Your task to perform on an android device: turn off translation in the chrome app Image 0: 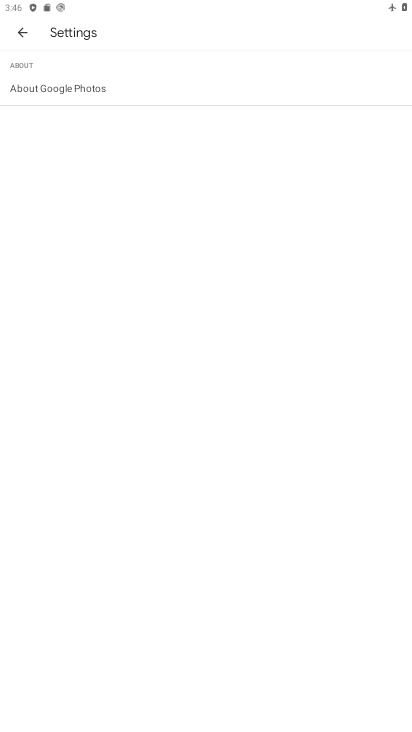
Step 0: press home button
Your task to perform on an android device: turn off translation in the chrome app Image 1: 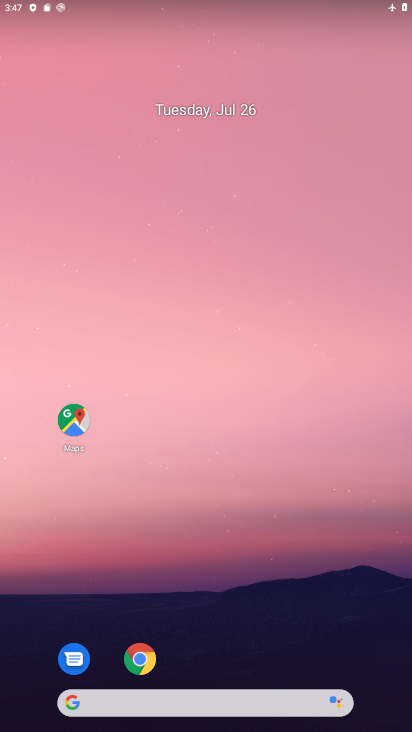
Step 1: drag from (272, 609) to (204, 0)
Your task to perform on an android device: turn off translation in the chrome app Image 2: 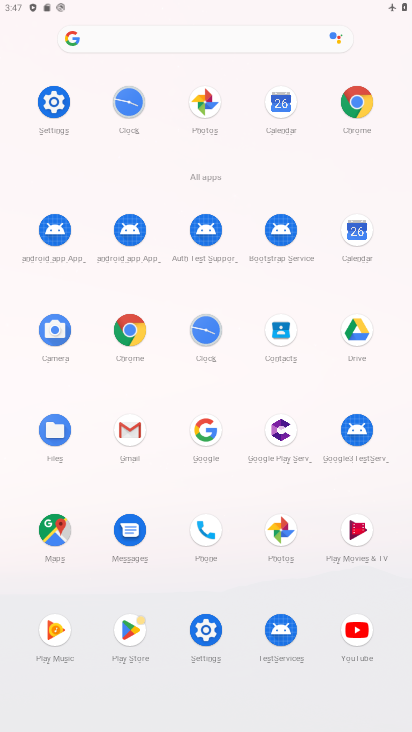
Step 2: click (358, 108)
Your task to perform on an android device: turn off translation in the chrome app Image 3: 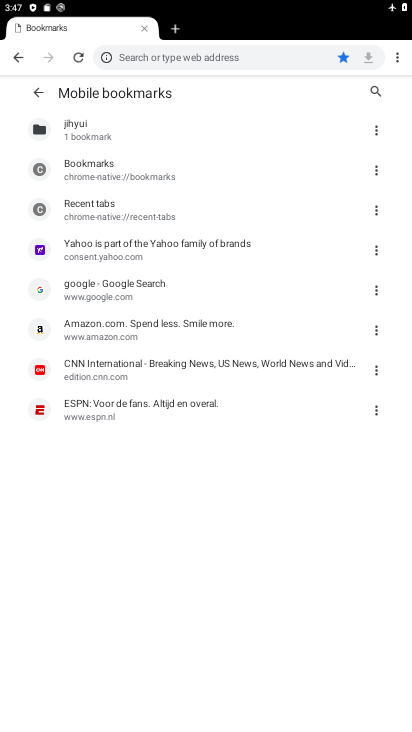
Step 3: drag from (394, 65) to (281, 264)
Your task to perform on an android device: turn off translation in the chrome app Image 4: 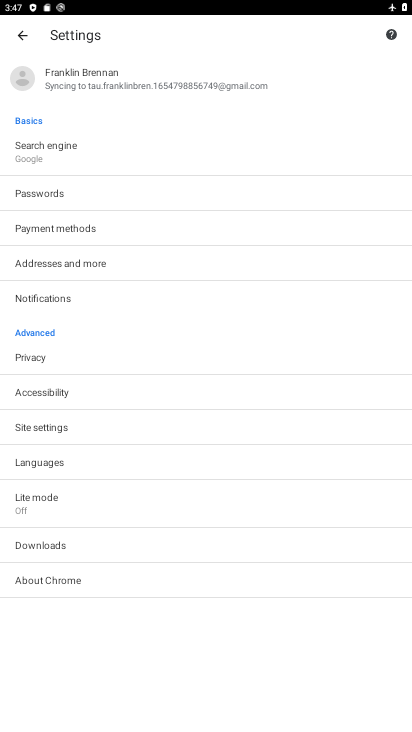
Step 4: click (107, 467)
Your task to perform on an android device: turn off translation in the chrome app Image 5: 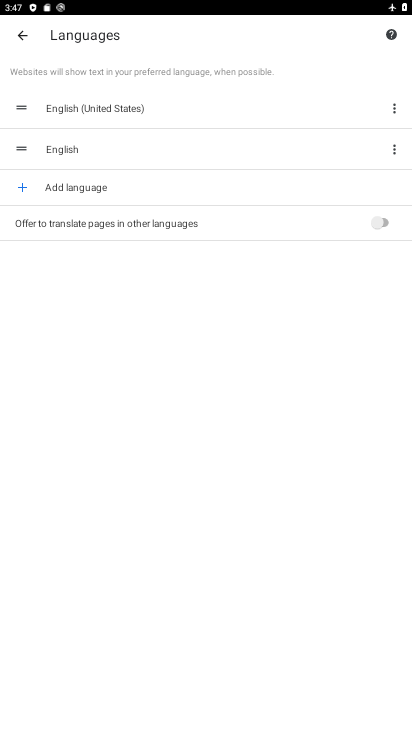
Step 5: task complete